Your task to perform on an android device: Play the last video I watched on Youtube Image 0: 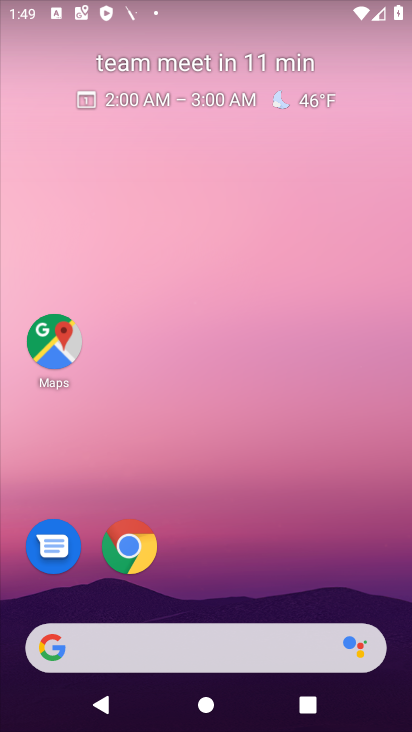
Step 0: drag from (399, 625) to (310, 62)
Your task to perform on an android device: Play the last video I watched on Youtube Image 1: 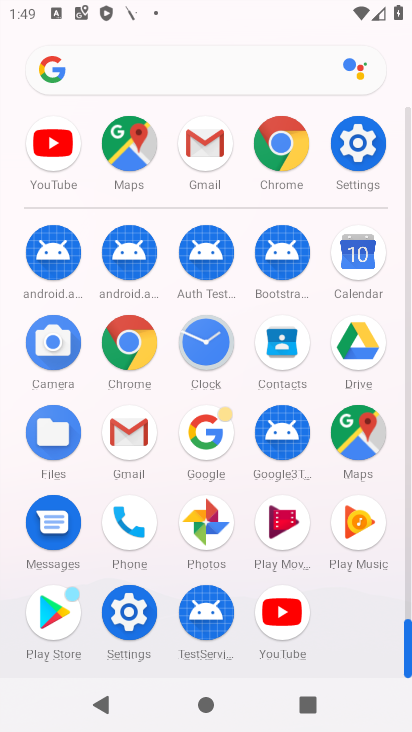
Step 1: click (282, 612)
Your task to perform on an android device: Play the last video I watched on Youtube Image 2: 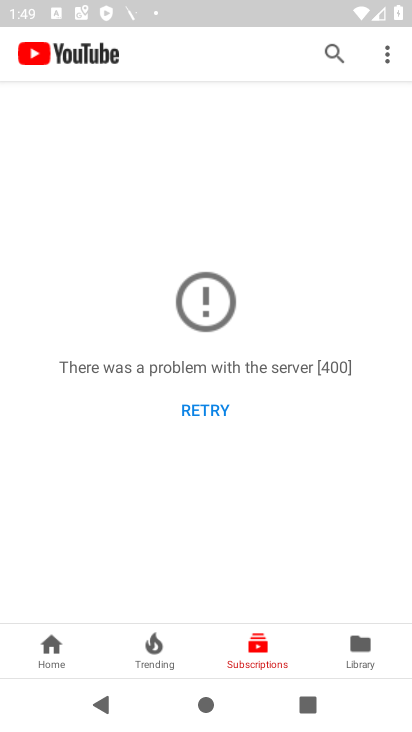
Step 2: click (356, 655)
Your task to perform on an android device: Play the last video I watched on Youtube Image 3: 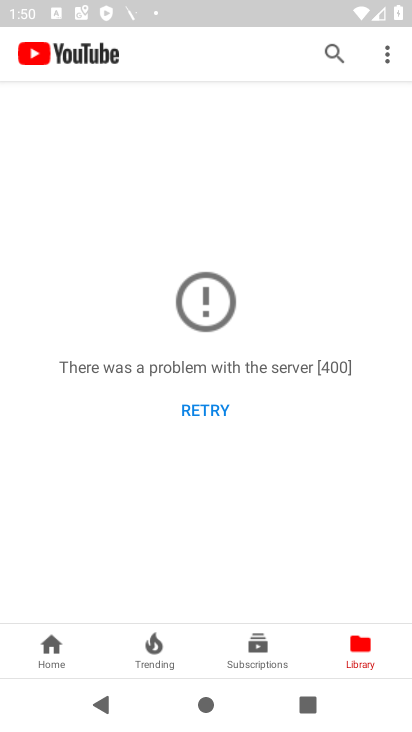
Step 3: click (201, 413)
Your task to perform on an android device: Play the last video I watched on Youtube Image 4: 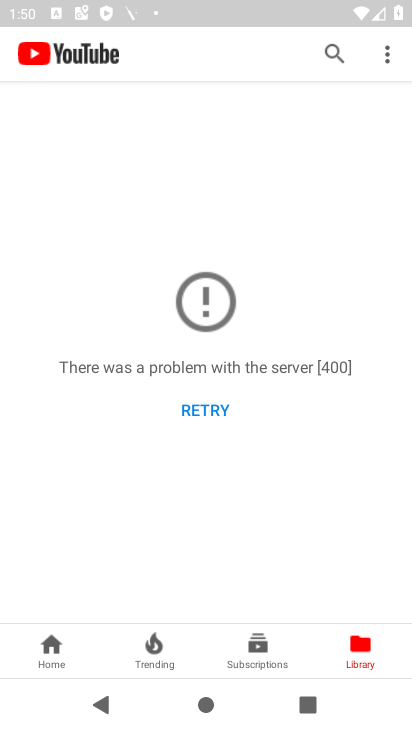
Step 4: click (201, 413)
Your task to perform on an android device: Play the last video I watched on Youtube Image 5: 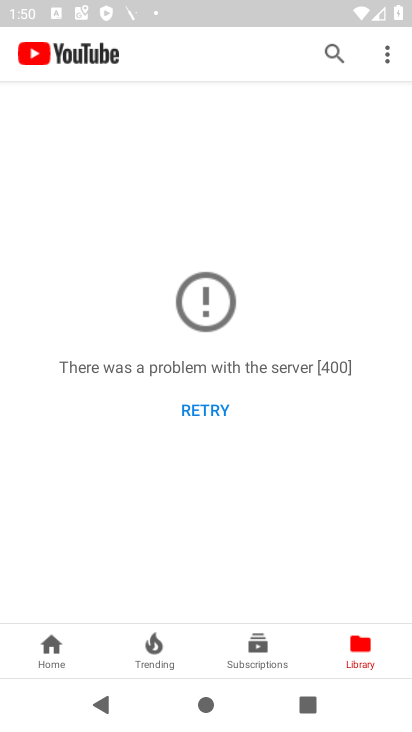
Step 5: click (201, 413)
Your task to perform on an android device: Play the last video I watched on Youtube Image 6: 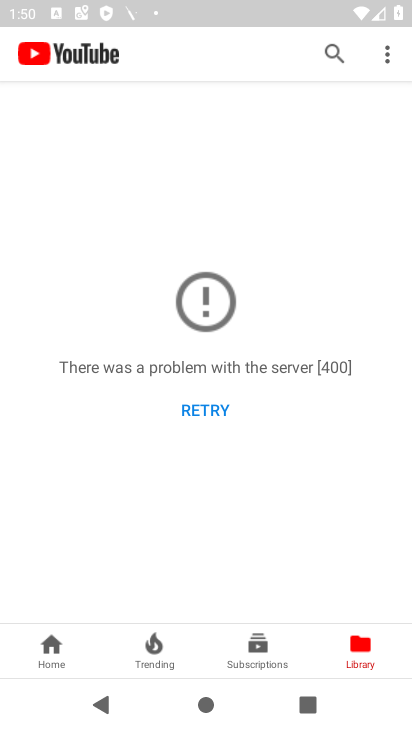
Step 6: task complete